Your task to perform on an android device: How do I get to the nearest IKEA? Image 0: 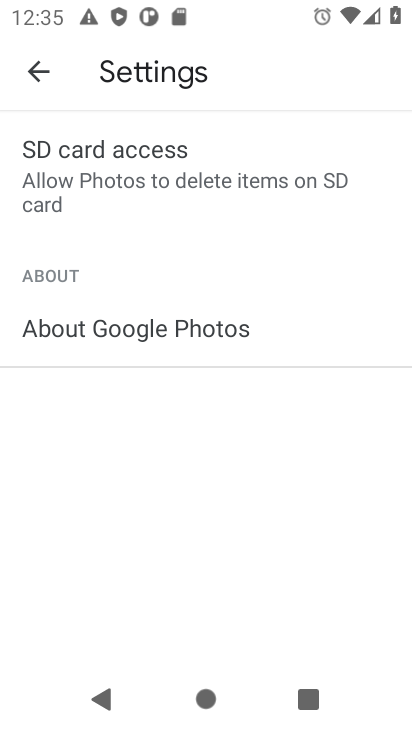
Step 0: press home button
Your task to perform on an android device: How do I get to the nearest IKEA? Image 1: 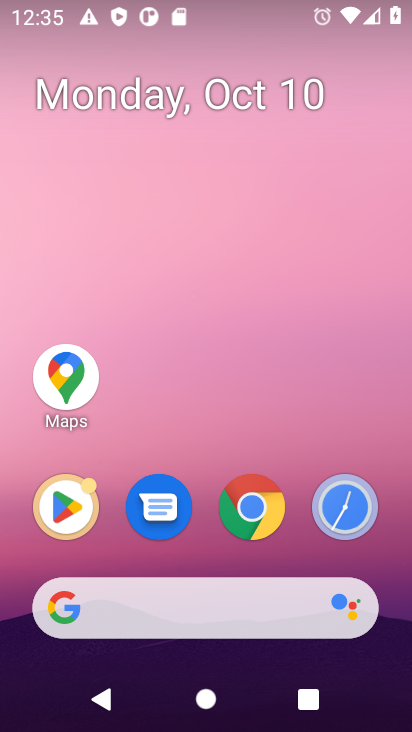
Step 1: click (236, 596)
Your task to perform on an android device: How do I get to the nearest IKEA? Image 2: 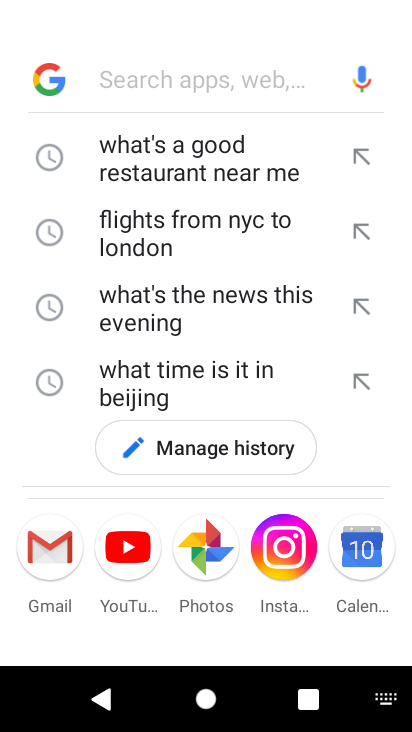
Step 2: type "How do I get to the nearest IKEA"
Your task to perform on an android device: How do I get to the nearest IKEA? Image 3: 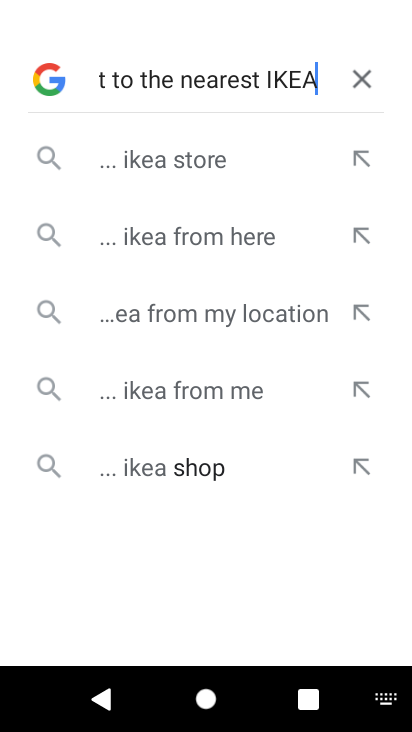
Step 3: press enter
Your task to perform on an android device: How do I get to the nearest IKEA? Image 4: 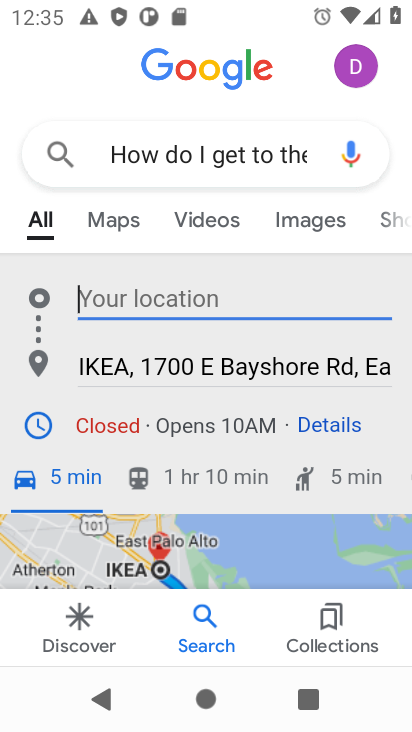
Step 4: task complete